Your task to perform on an android device: Open eBay Image 0: 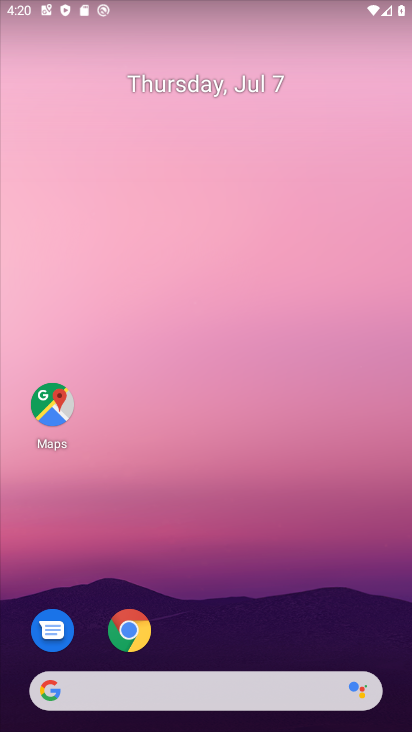
Step 0: drag from (174, 6) to (210, 545)
Your task to perform on an android device: Open eBay Image 1: 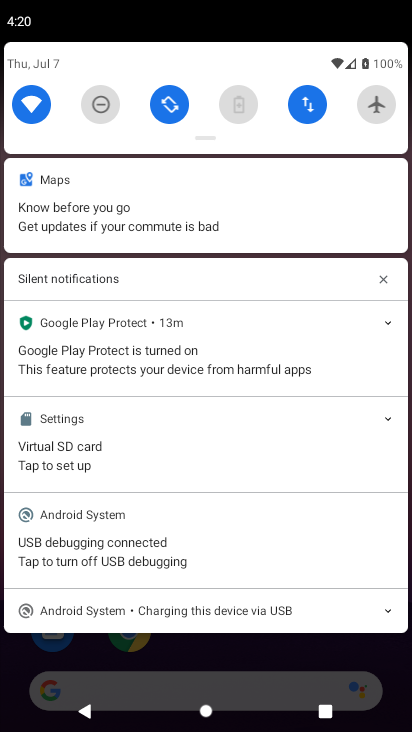
Step 1: click (43, 102)
Your task to perform on an android device: Open eBay Image 2: 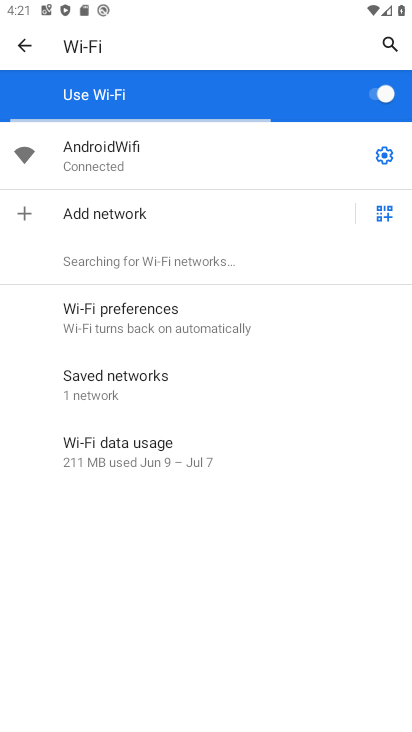
Step 2: task complete